Your task to perform on an android device: make emails show in primary in the gmail app Image 0: 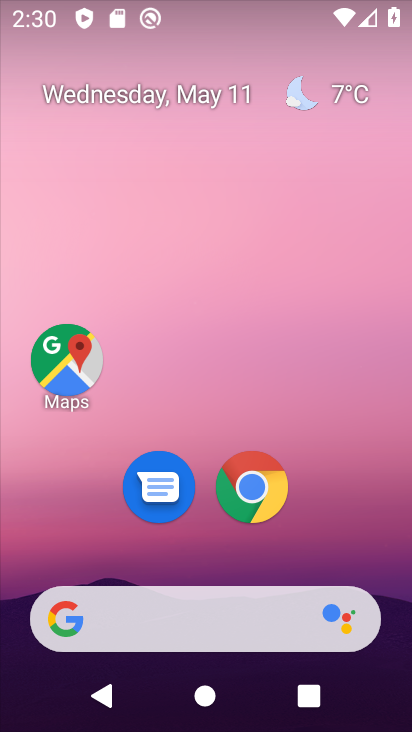
Step 0: drag from (286, 593) to (255, 56)
Your task to perform on an android device: make emails show in primary in the gmail app Image 1: 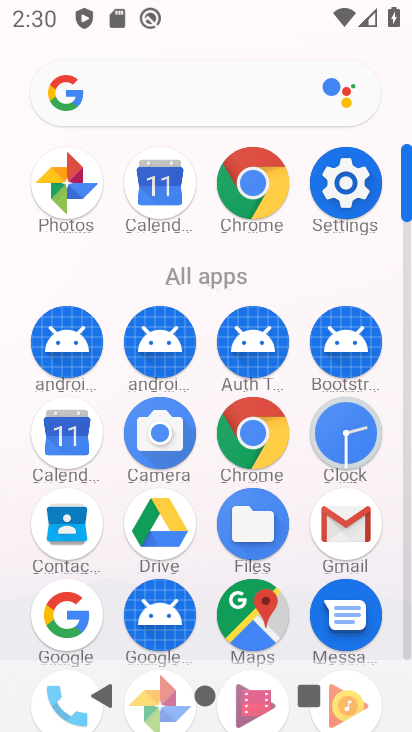
Step 1: click (332, 522)
Your task to perform on an android device: make emails show in primary in the gmail app Image 2: 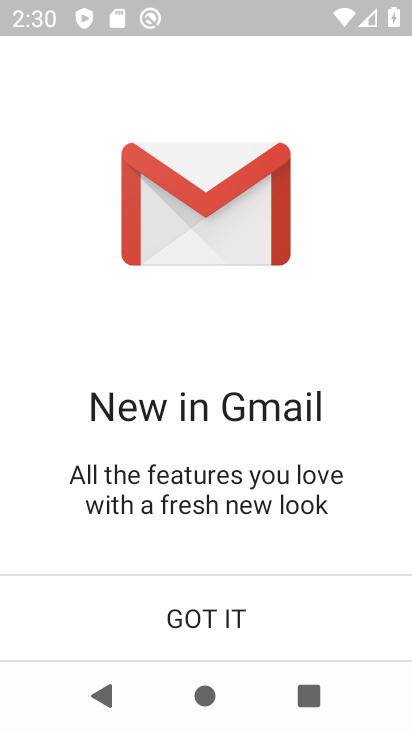
Step 2: click (170, 619)
Your task to perform on an android device: make emails show in primary in the gmail app Image 3: 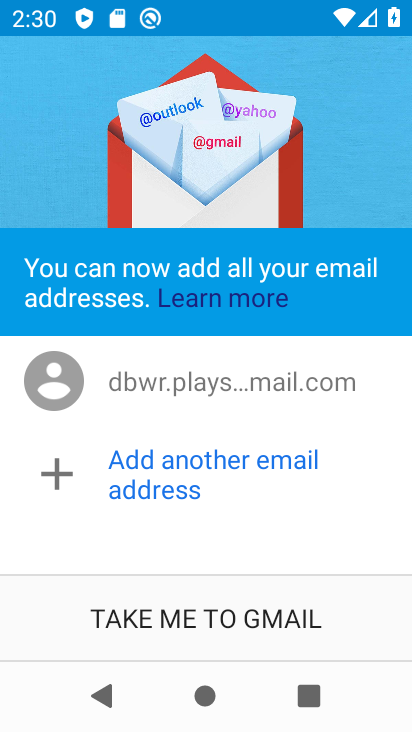
Step 3: click (279, 627)
Your task to perform on an android device: make emails show in primary in the gmail app Image 4: 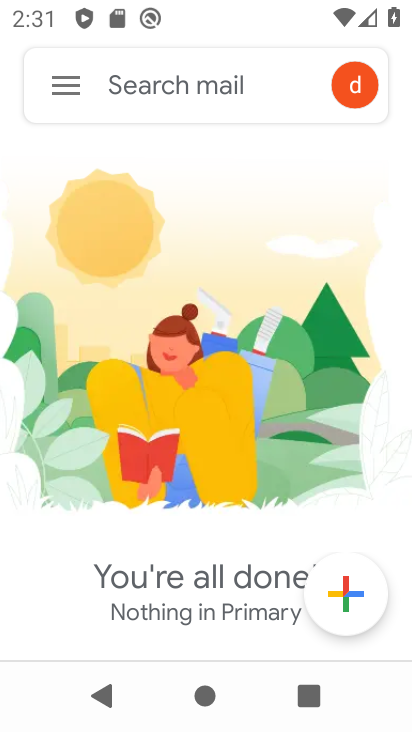
Step 4: click (55, 77)
Your task to perform on an android device: make emails show in primary in the gmail app Image 5: 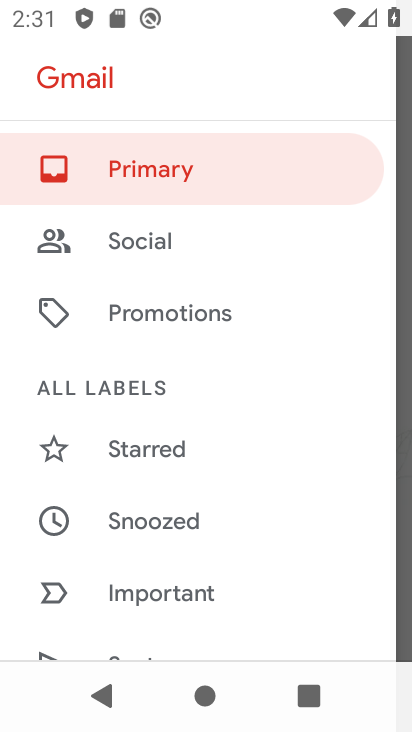
Step 5: task complete